Your task to perform on an android device: Search for pizza restaurants on Maps Image 0: 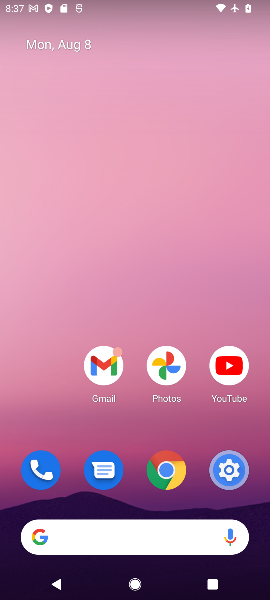
Step 0: drag from (154, 396) to (173, 269)
Your task to perform on an android device: Search for pizza restaurants on Maps Image 1: 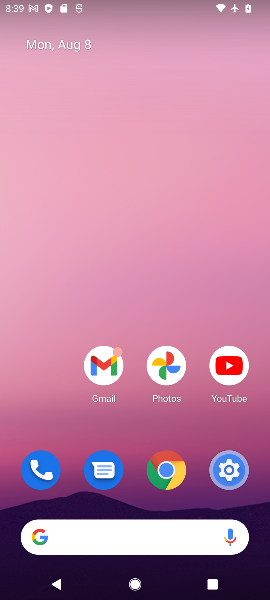
Step 1: drag from (140, 518) to (215, 73)
Your task to perform on an android device: Search for pizza restaurants on Maps Image 2: 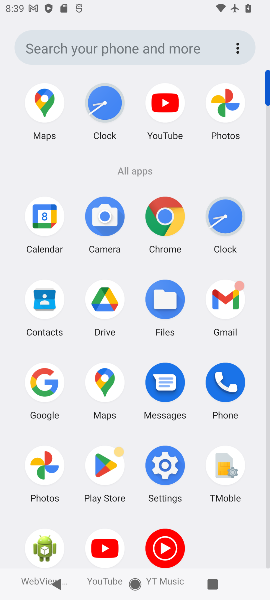
Step 2: click (111, 378)
Your task to perform on an android device: Search for pizza restaurants on Maps Image 3: 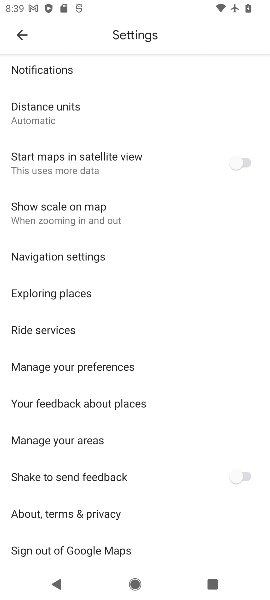
Step 3: click (24, 36)
Your task to perform on an android device: Search for pizza restaurants on Maps Image 4: 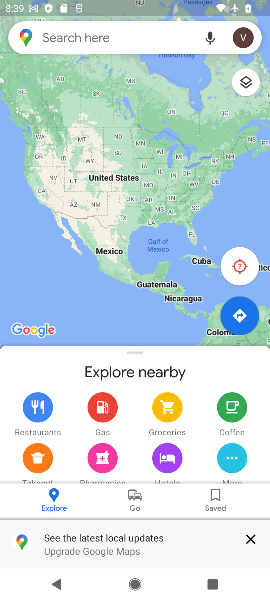
Step 4: click (116, 37)
Your task to perform on an android device: Search for pizza restaurants on Maps Image 5: 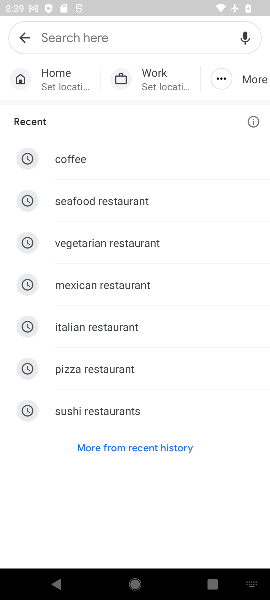
Step 5: click (81, 372)
Your task to perform on an android device: Search for pizza restaurants on Maps Image 6: 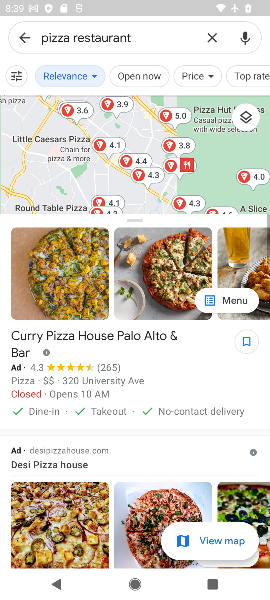
Step 6: task complete